Your task to perform on an android device: How much does a 3 bedroom apartment rent for in Philadelphia? Image 0: 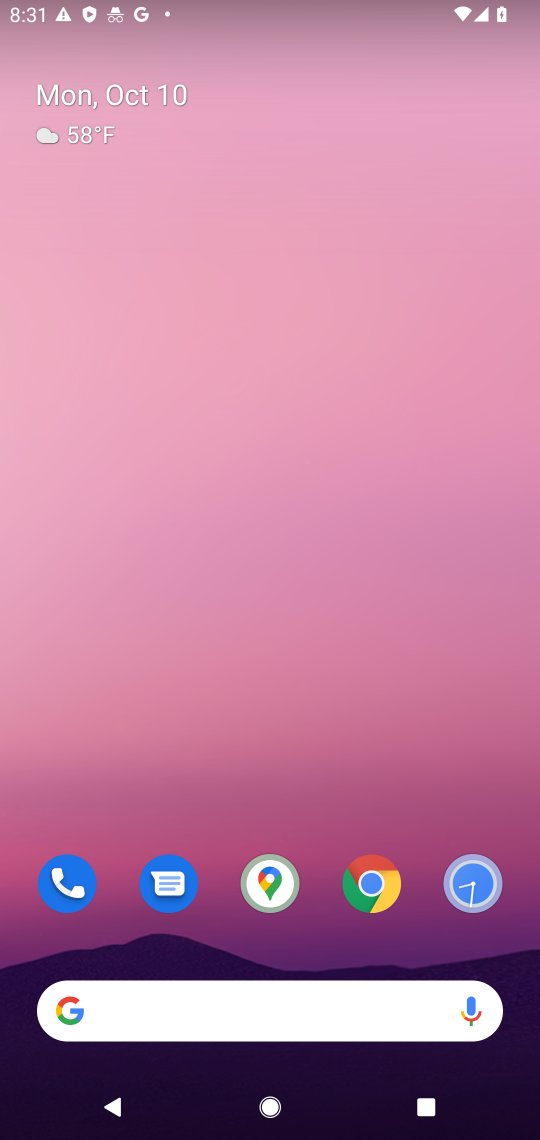
Step 0: drag from (440, 1119) to (530, 1104)
Your task to perform on an android device: How much does a 3 bedroom apartment rent for in Philadelphia? Image 1: 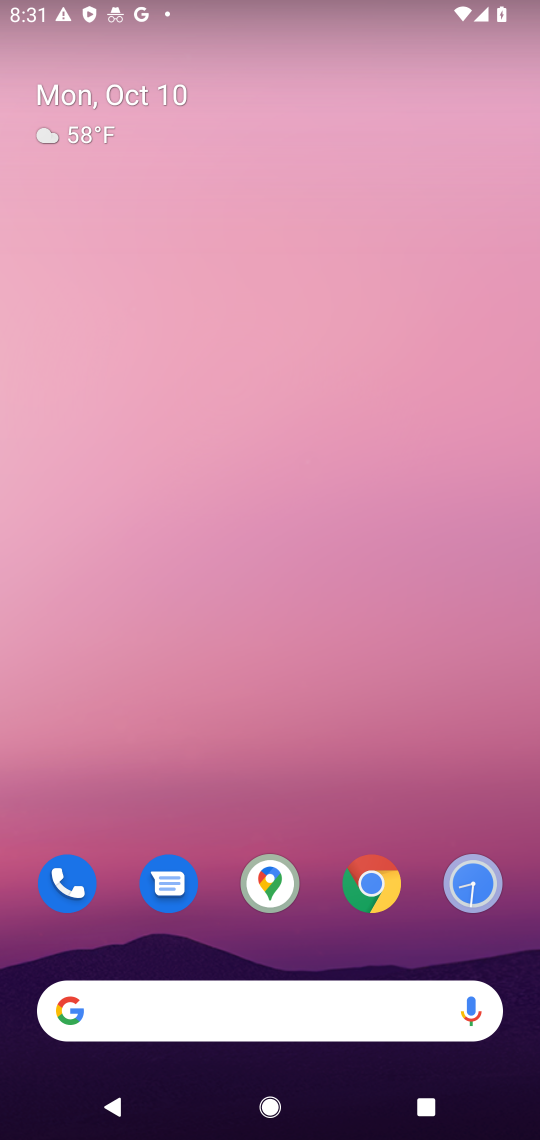
Step 1: drag from (535, 1104) to (479, 1063)
Your task to perform on an android device: How much does a 3 bedroom apartment rent for in Philadelphia? Image 2: 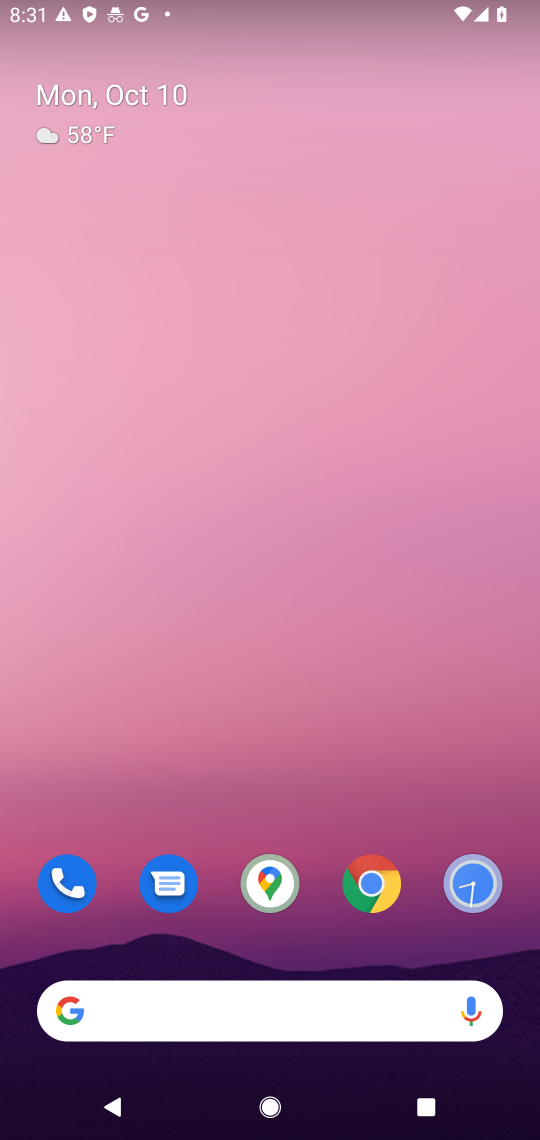
Step 2: drag from (374, 1037) to (298, 545)
Your task to perform on an android device: How much does a 3 bedroom apartment rent for in Philadelphia? Image 3: 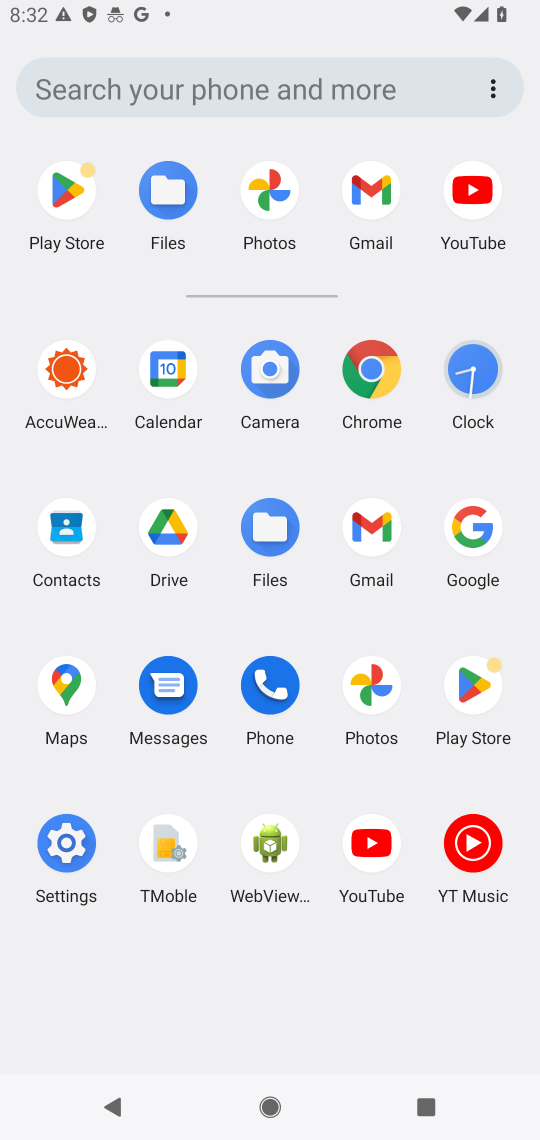
Step 3: click (481, 529)
Your task to perform on an android device: How much does a 3 bedroom apartment rent for in Philadelphia? Image 4: 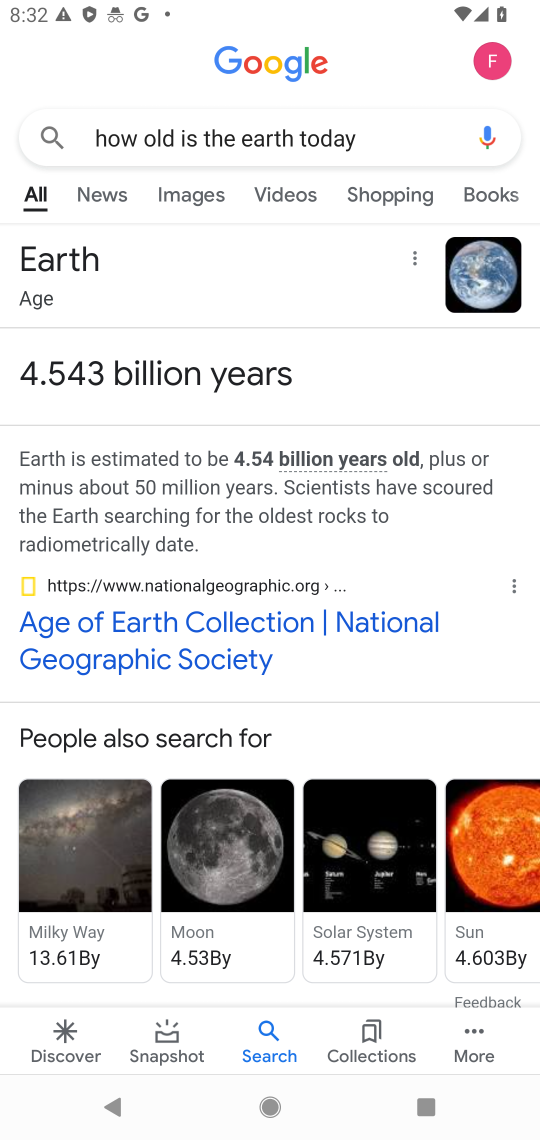
Step 4: click (402, 149)
Your task to perform on an android device: How much does a 3 bedroom apartment rent for in Philadelphia? Image 5: 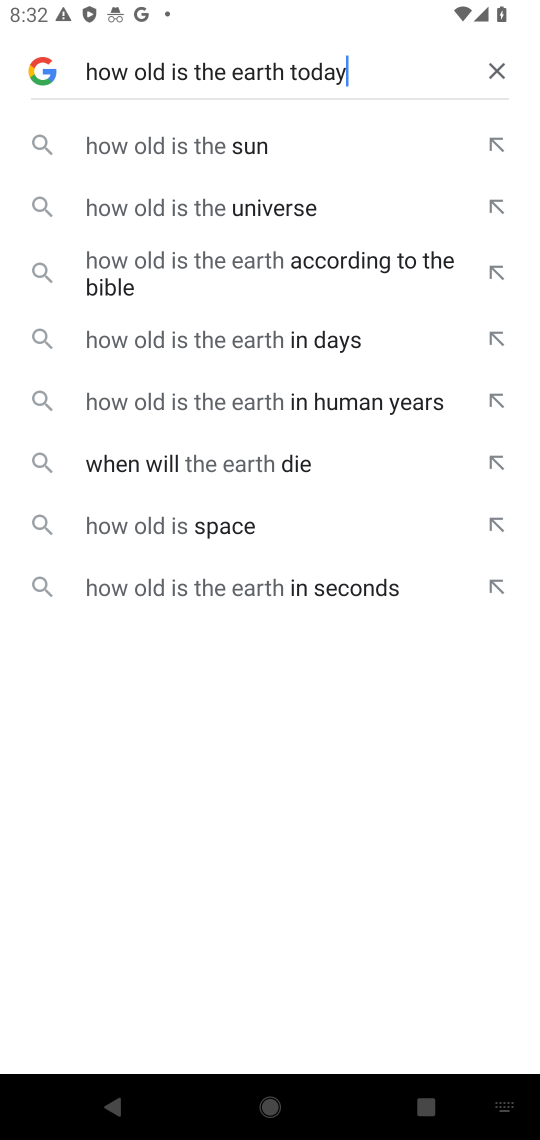
Step 5: click (496, 73)
Your task to perform on an android device: How much does a 3 bedroom apartment rent for in Philadelphia? Image 6: 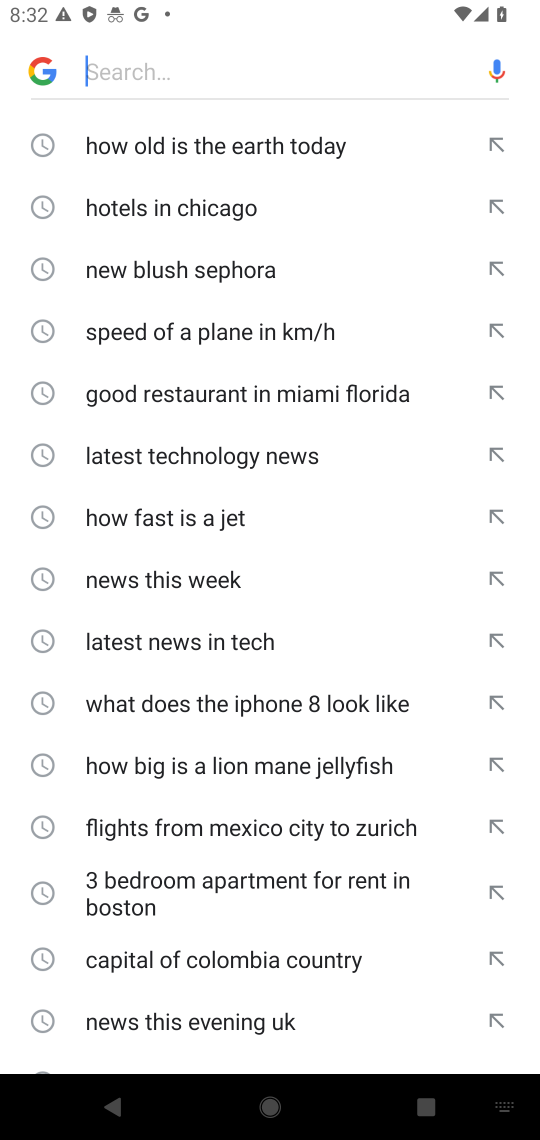
Step 6: type "3 bedroom apartment rent for in Philadelphia"
Your task to perform on an android device: How much does a 3 bedroom apartment rent for in Philadelphia? Image 7: 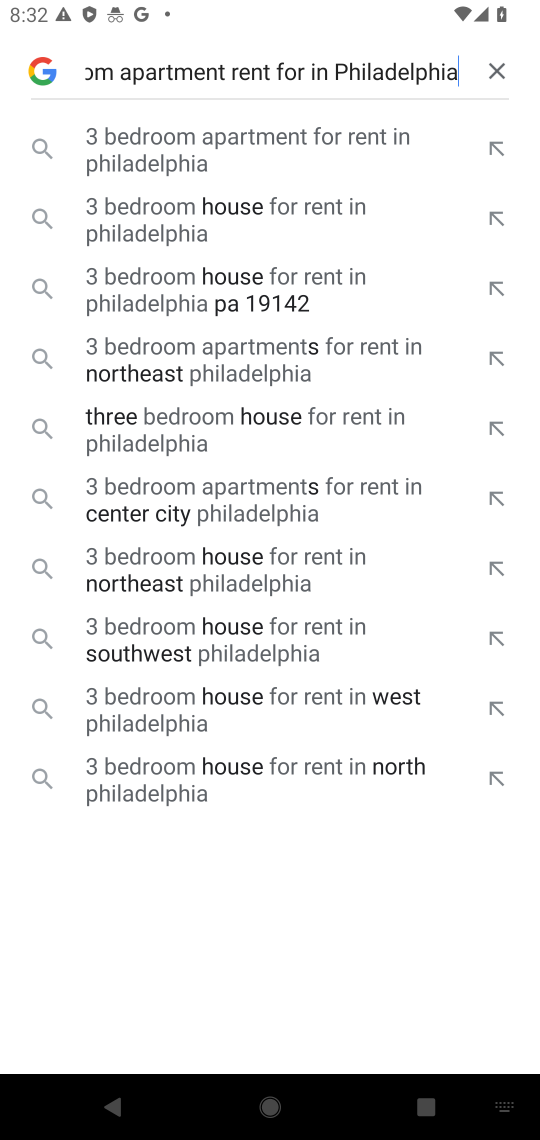
Step 7: click (271, 130)
Your task to perform on an android device: How much does a 3 bedroom apartment rent for in Philadelphia? Image 8: 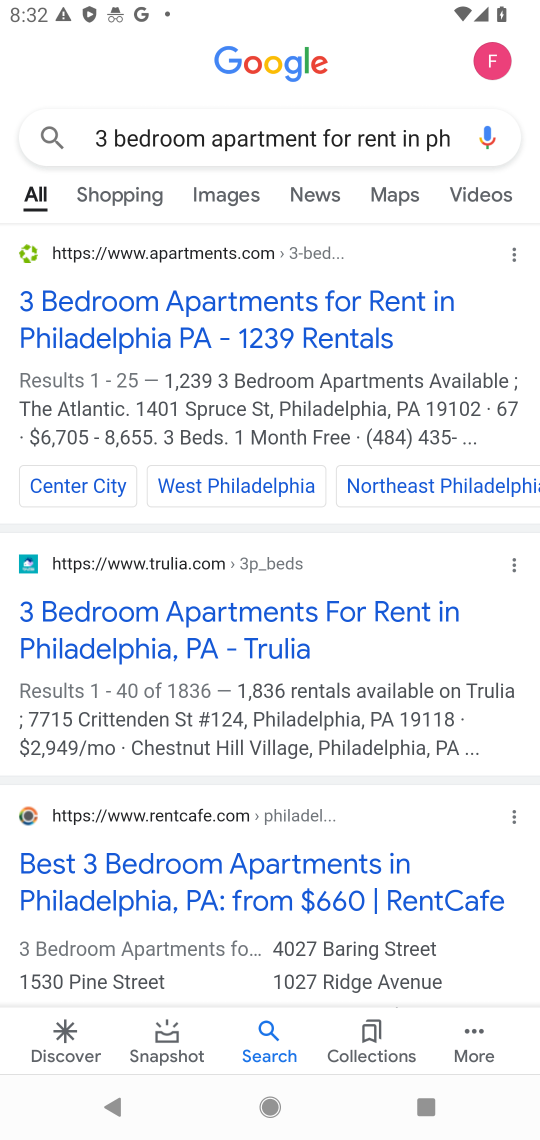
Step 8: click (481, 223)
Your task to perform on an android device: How much does a 3 bedroom apartment rent for in Philadelphia? Image 9: 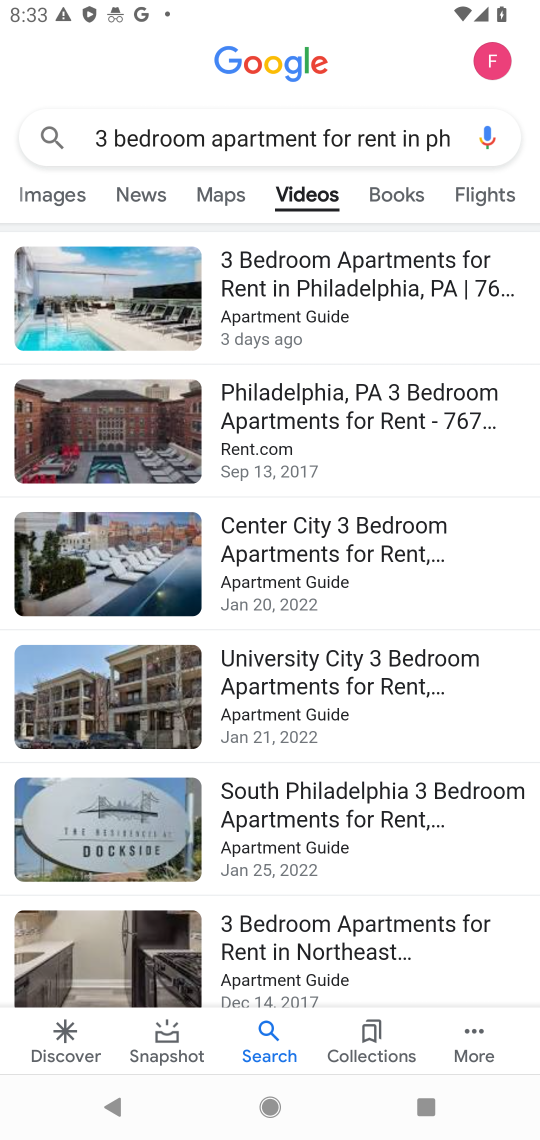
Step 9: task complete